Your task to perform on an android device: find snoozed emails in the gmail app Image 0: 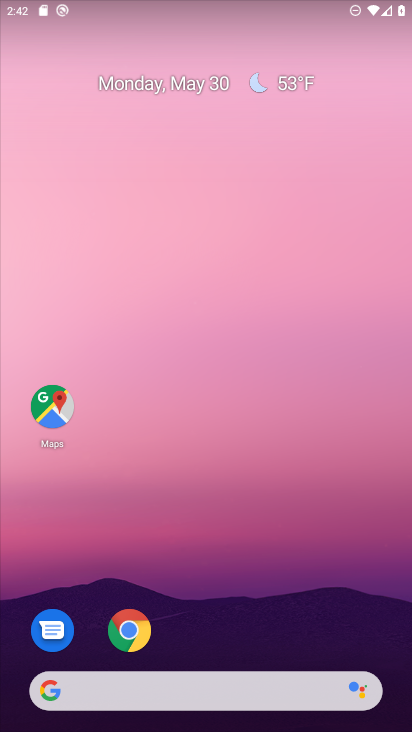
Step 0: drag from (162, 689) to (210, 177)
Your task to perform on an android device: find snoozed emails in the gmail app Image 1: 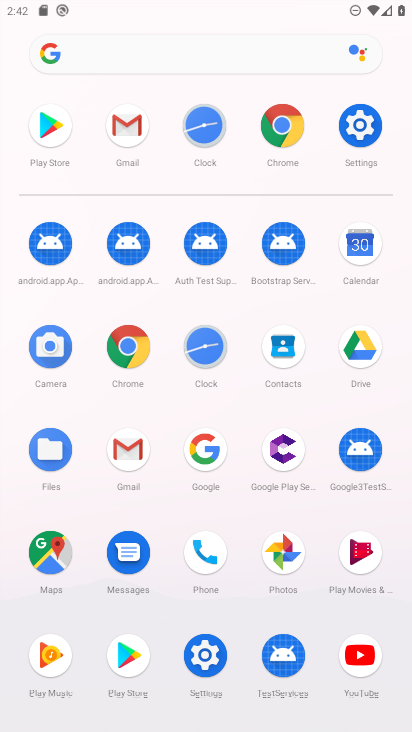
Step 1: click (142, 449)
Your task to perform on an android device: find snoozed emails in the gmail app Image 2: 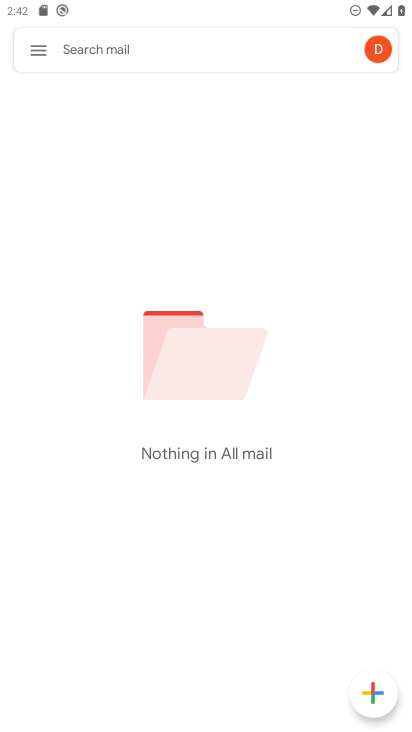
Step 2: click (39, 51)
Your task to perform on an android device: find snoozed emails in the gmail app Image 3: 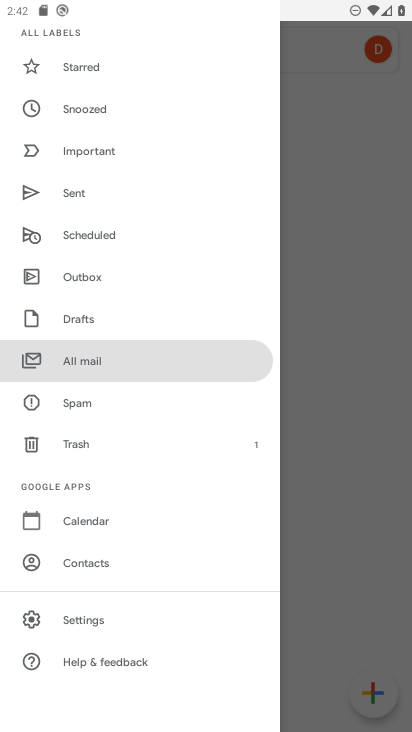
Step 3: click (84, 114)
Your task to perform on an android device: find snoozed emails in the gmail app Image 4: 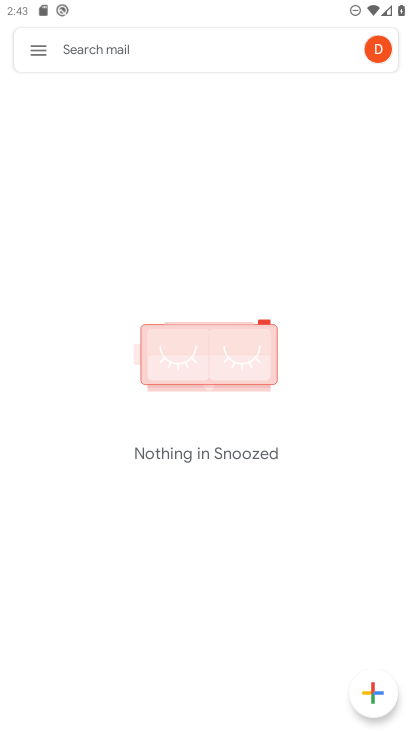
Step 4: task complete